Your task to perform on an android device: Show the shopping cart on bestbuy. Search for "razer blade" on bestbuy, select the first entry, add it to the cart, then select checkout. Image 0: 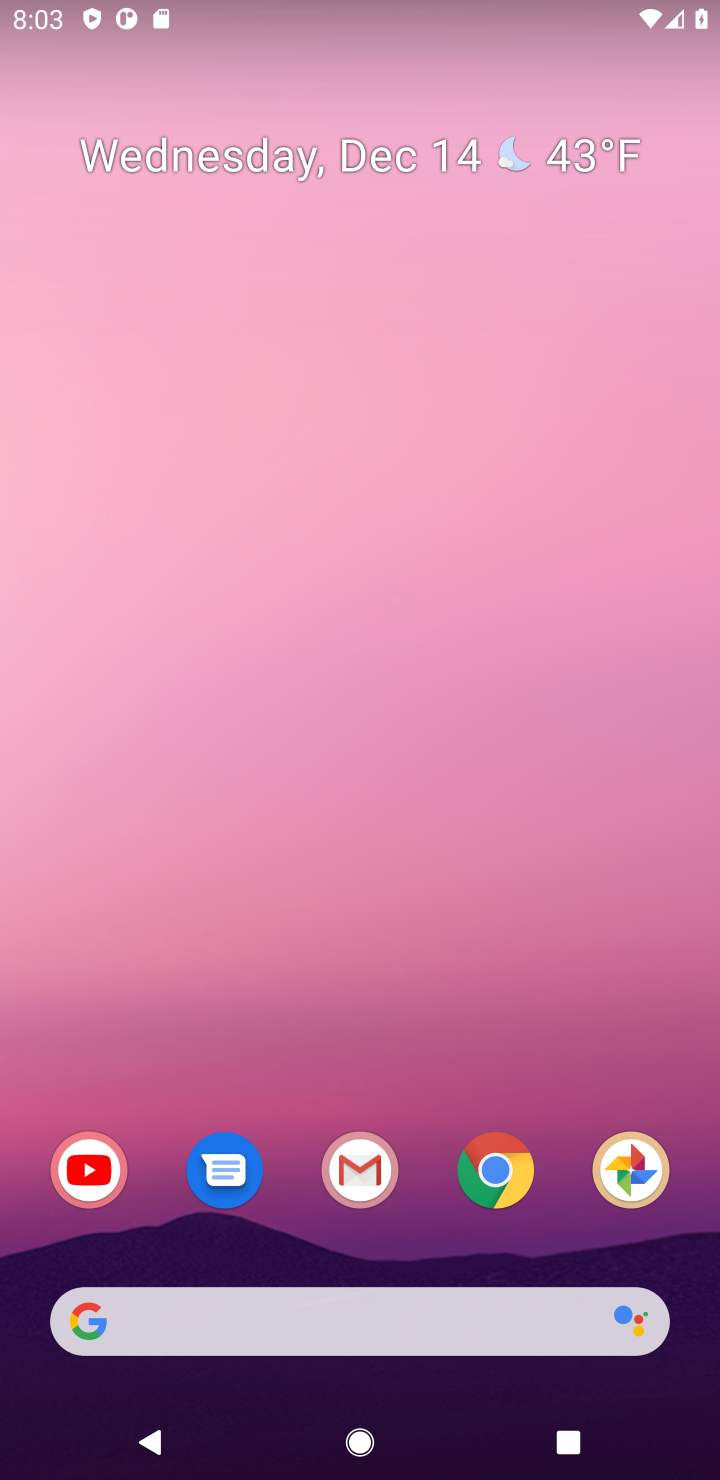
Step 0: click (479, 1141)
Your task to perform on an android device: Show the shopping cart on bestbuy. Search for "razer blade" on bestbuy, select the first entry, add it to the cart, then select checkout. Image 1: 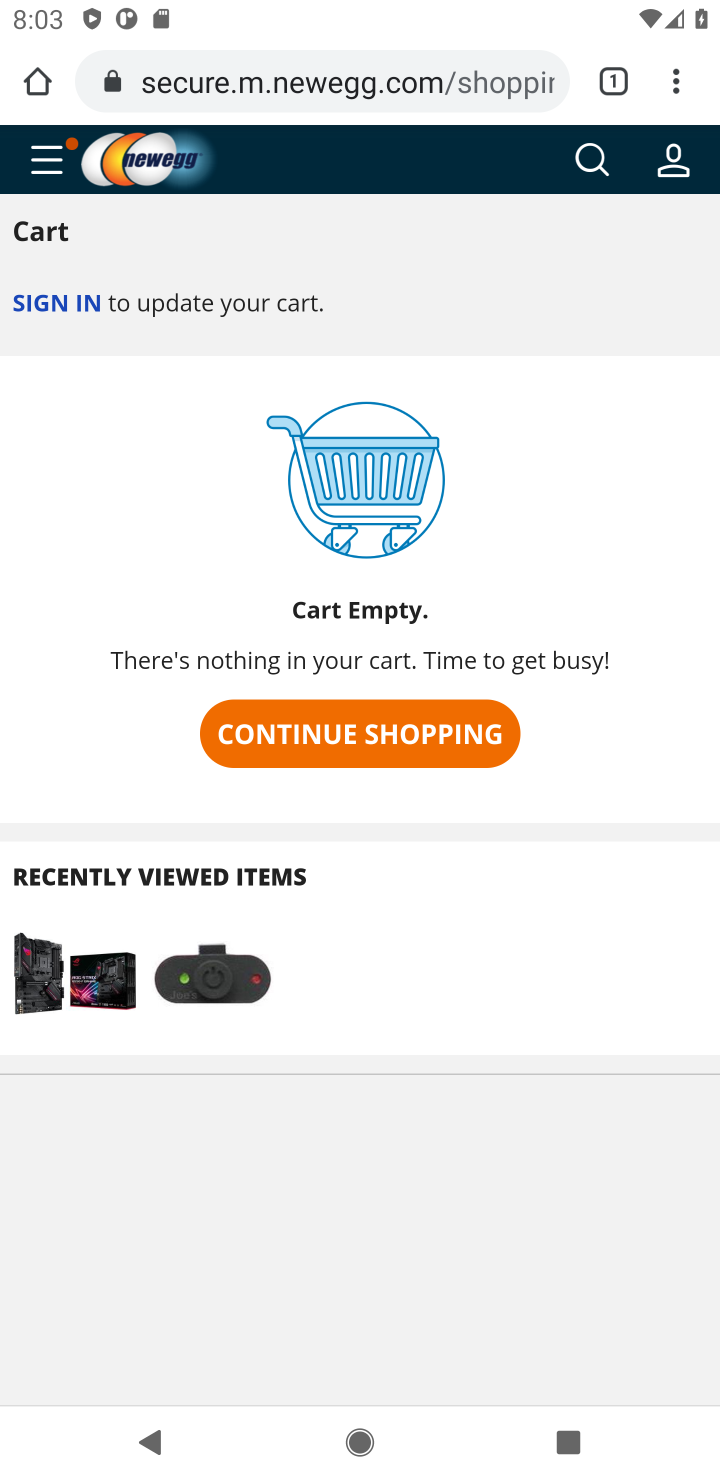
Step 1: click (468, 72)
Your task to perform on an android device: Show the shopping cart on bestbuy. Search for "razer blade" on bestbuy, select the first entry, add it to the cart, then select checkout. Image 2: 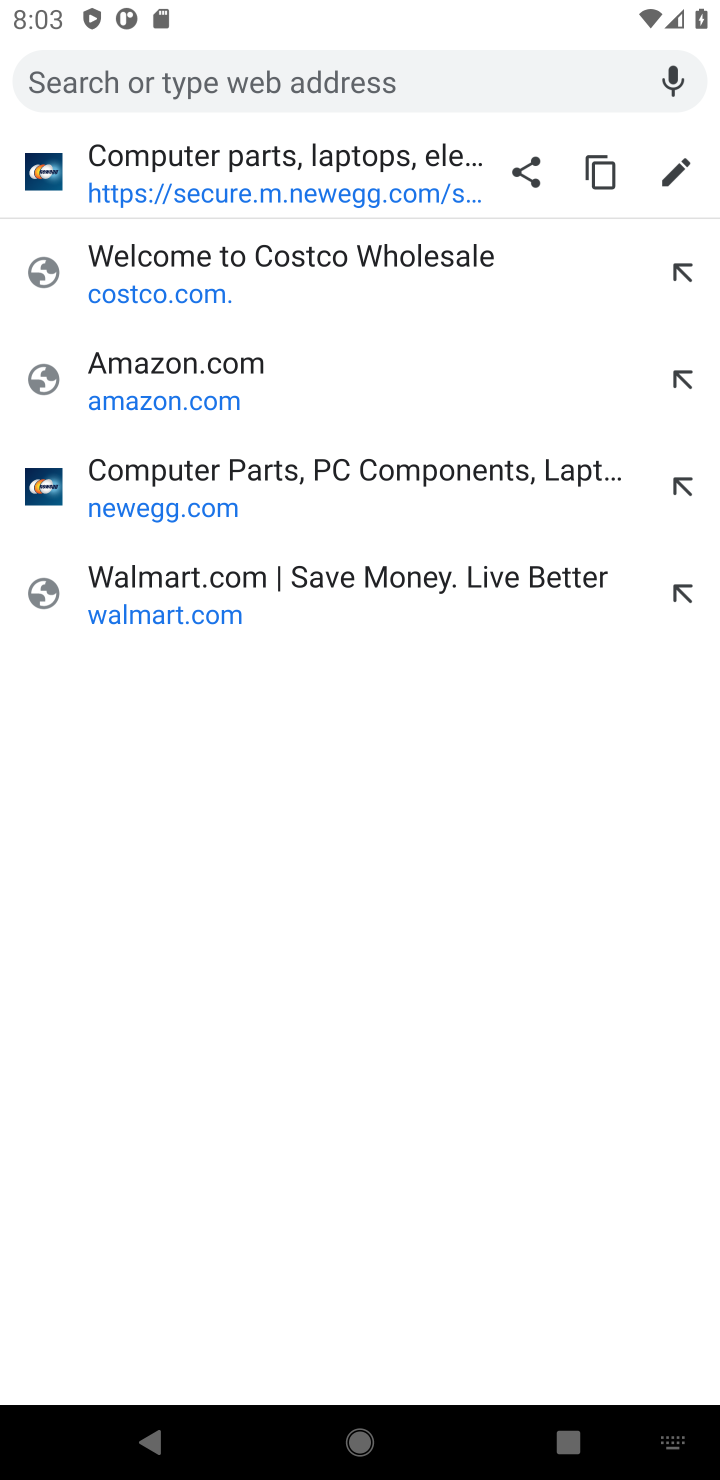
Step 2: type "BESTBUY"
Your task to perform on an android device: Show the shopping cart on bestbuy. Search for "razer blade" on bestbuy, select the first entry, add it to the cart, then select checkout. Image 3: 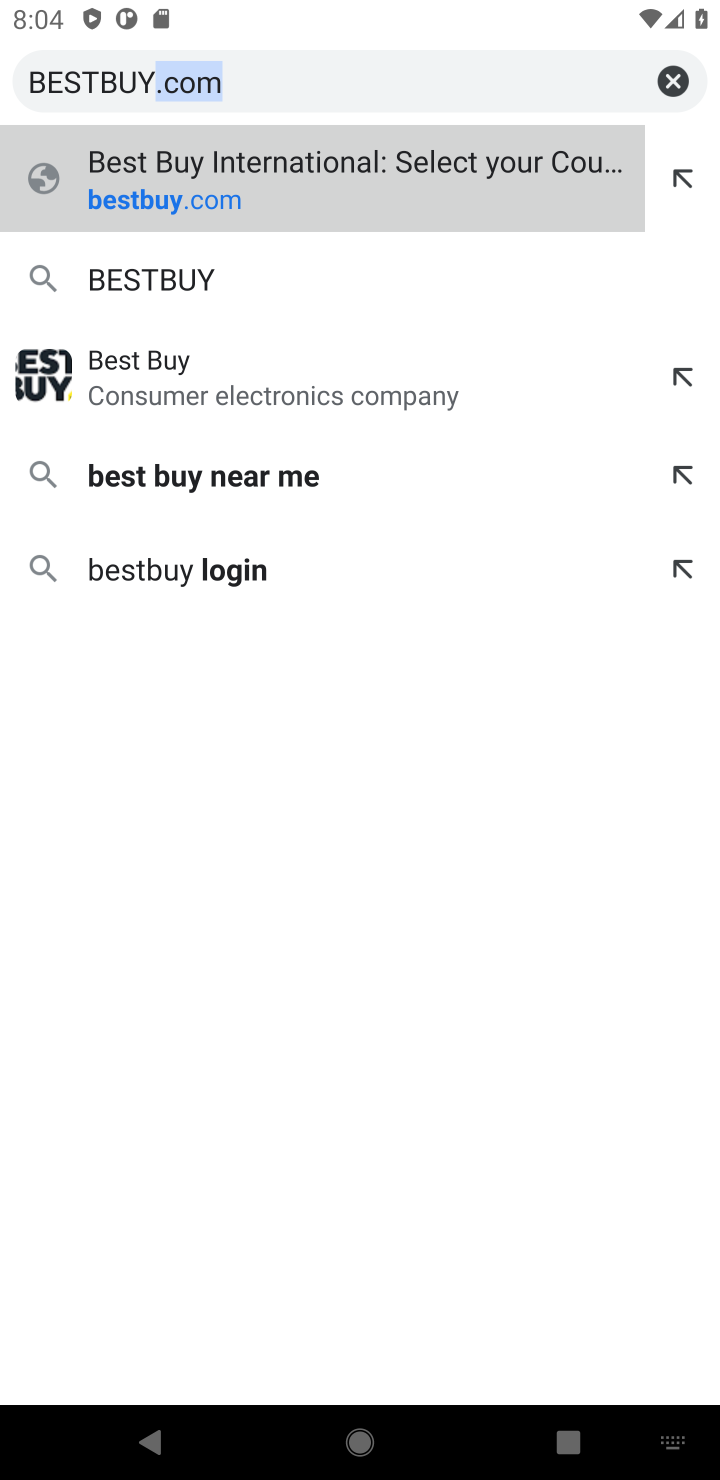
Step 3: click (359, 171)
Your task to perform on an android device: Show the shopping cart on bestbuy. Search for "razer blade" on bestbuy, select the first entry, add it to the cart, then select checkout. Image 4: 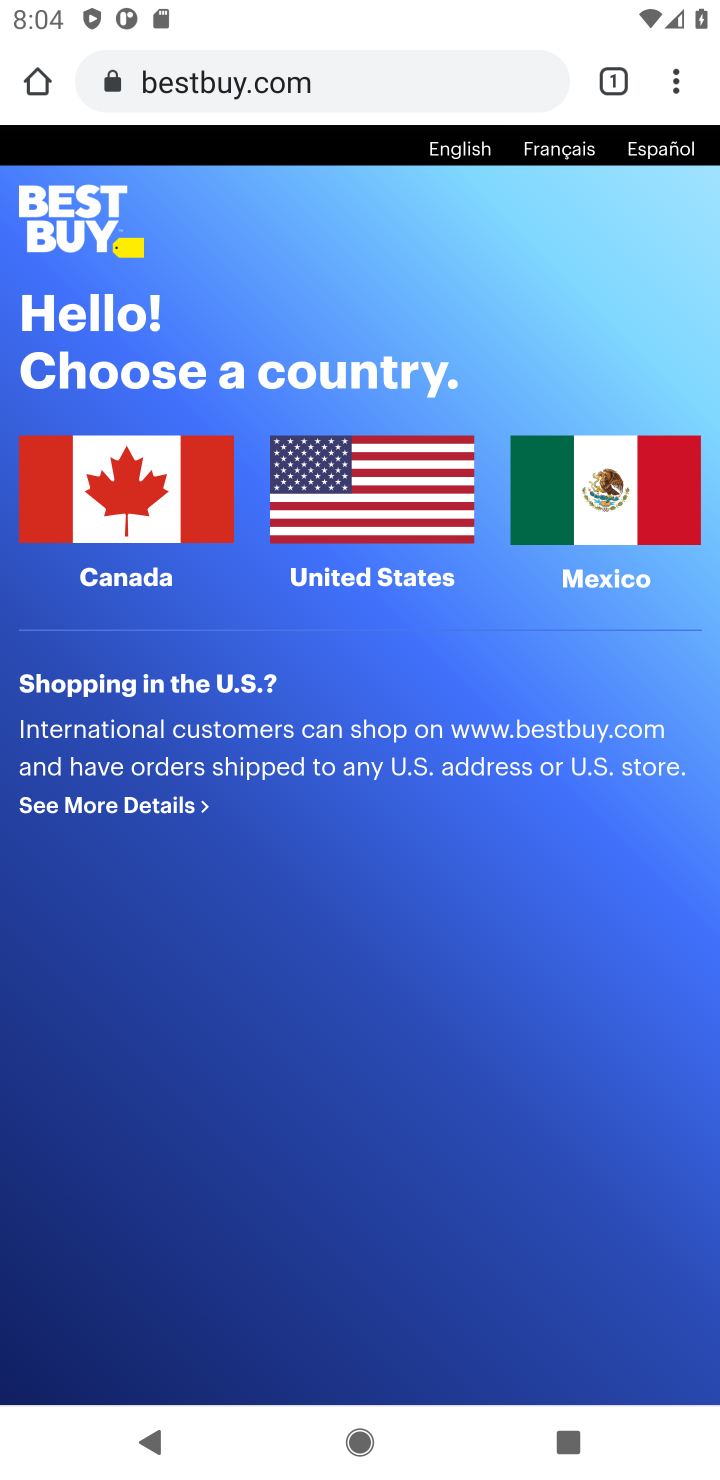
Step 4: click (333, 512)
Your task to perform on an android device: Show the shopping cart on bestbuy. Search for "razer blade" on bestbuy, select the first entry, add it to the cart, then select checkout. Image 5: 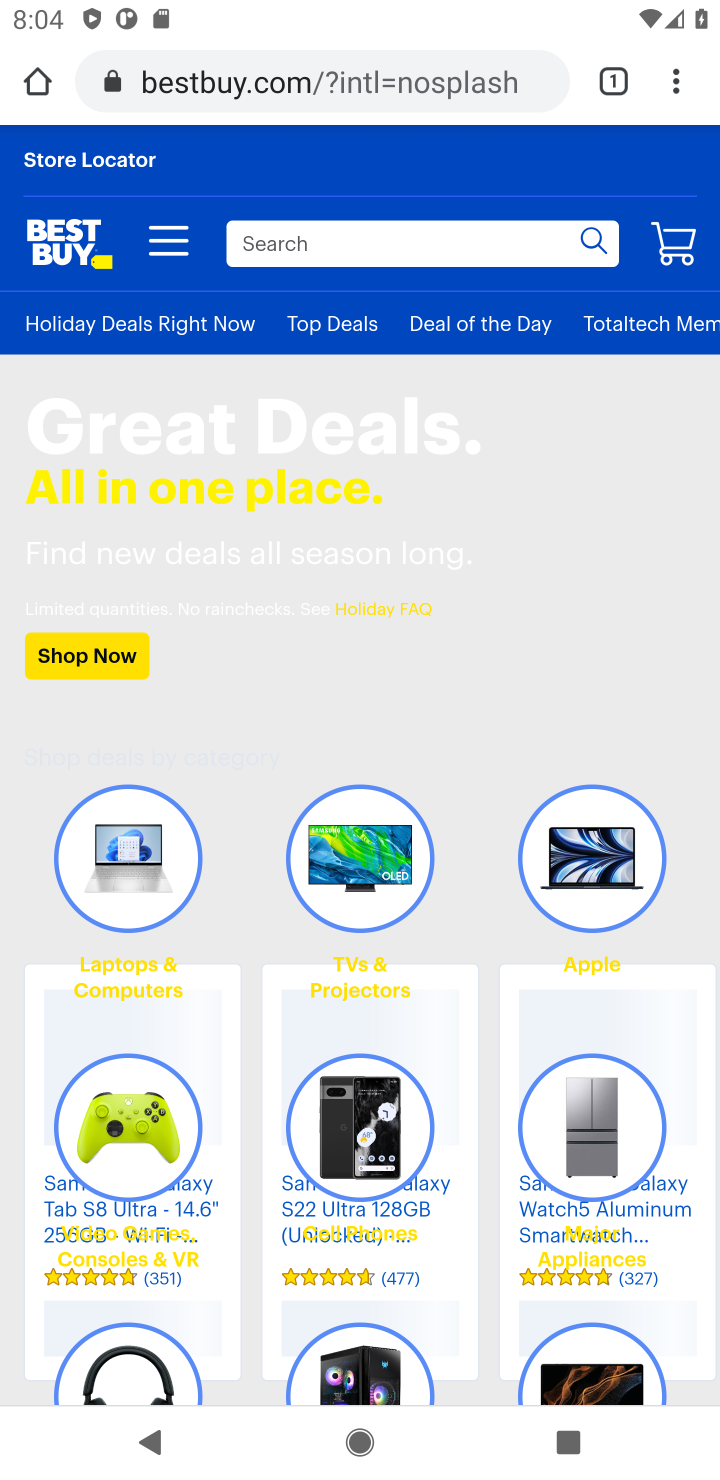
Step 5: click (482, 245)
Your task to perform on an android device: Show the shopping cart on bestbuy. Search for "razer blade" on bestbuy, select the first entry, add it to the cart, then select checkout. Image 6: 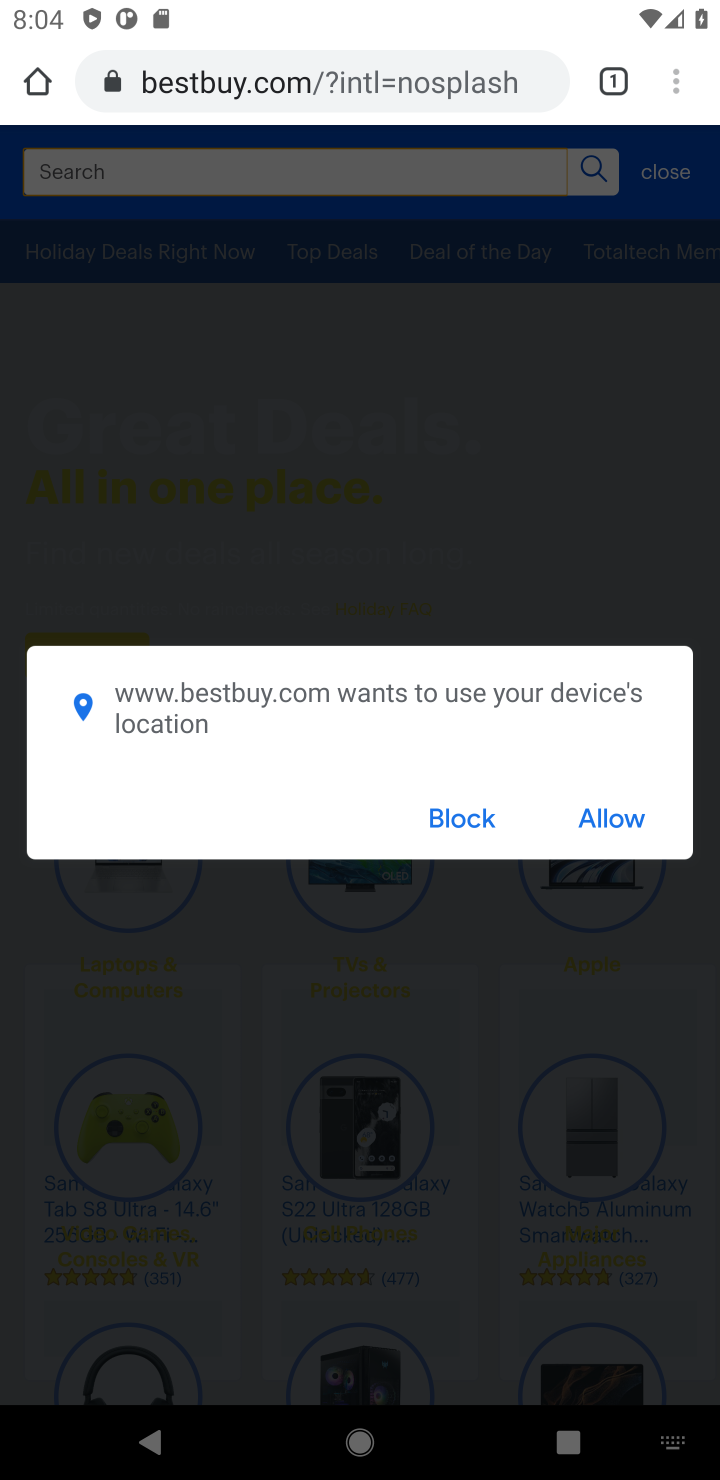
Step 6: type "RAZER"
Your task to perform on an android device: Show the shopping cart on bestbuy. Search for "razer blade" on bestbuy, select the first entry, add it to the cart, then select checkout. Image 7: 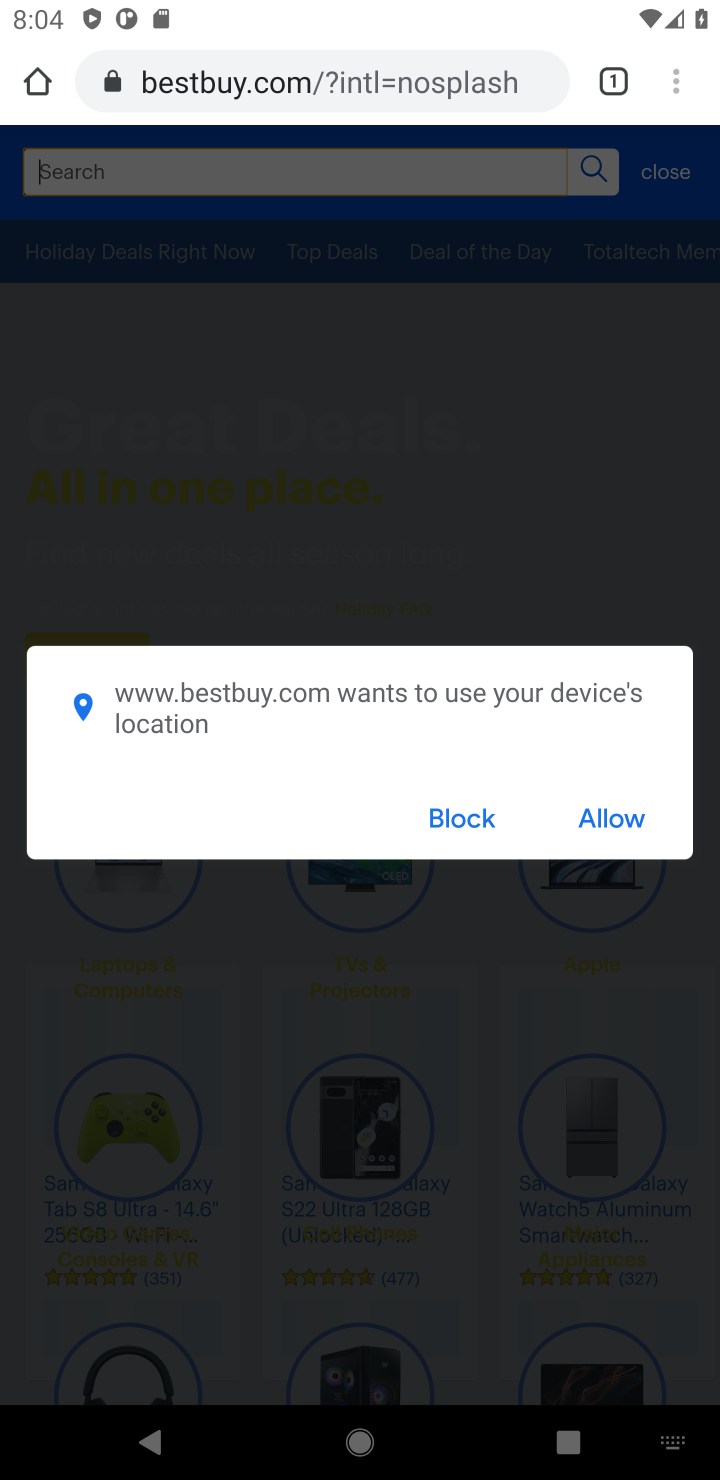
Step 7: click (447, 830)
Your task to perform on an android device: Show the shopping cart on bestbuy. Search for "razer blade" on bestbuy, select the first entry, add it to the cart, then select checkout. Image 8: 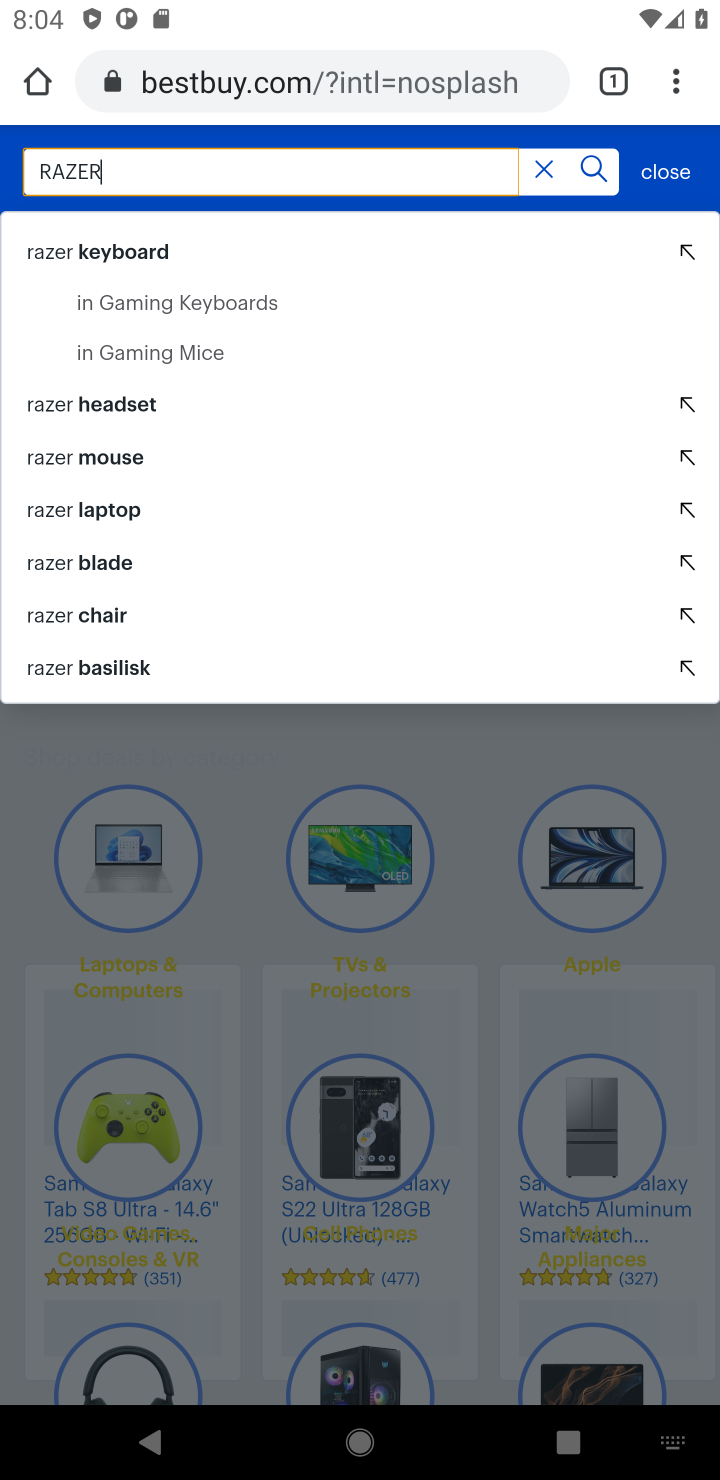
Step 8: type "BLADE"
Your task to perform on an android device: Show the shopping cart on bestbuy. Search for "razer blade" on bestbuy, select the first entry, add it to the cart, then select checkout. Image 9: 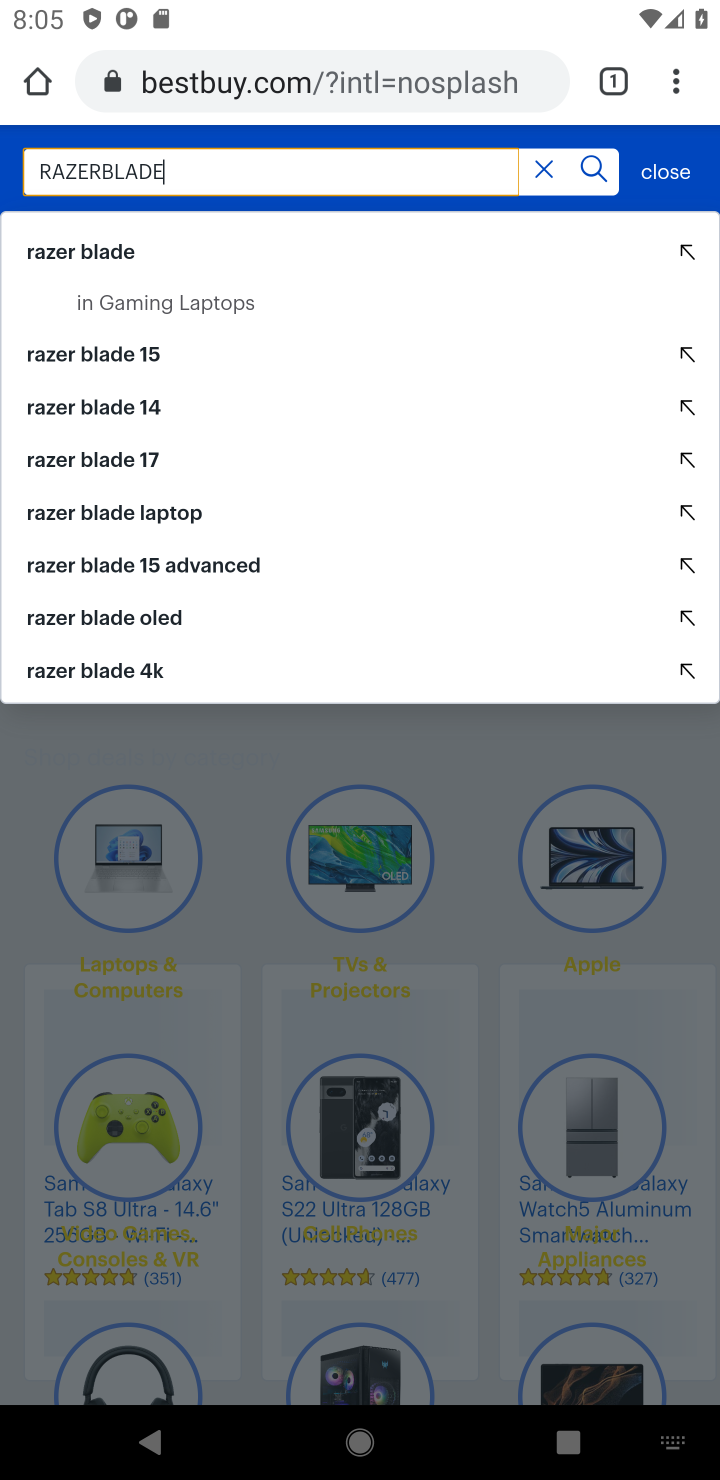
Step 9: click (123, 262)
Your task to perform on an android device: Show the shopping cart on bestbuy. Search for "razer blade" on bestbuy, select the first entry, add it to the cart, then select checkout. Image 10: 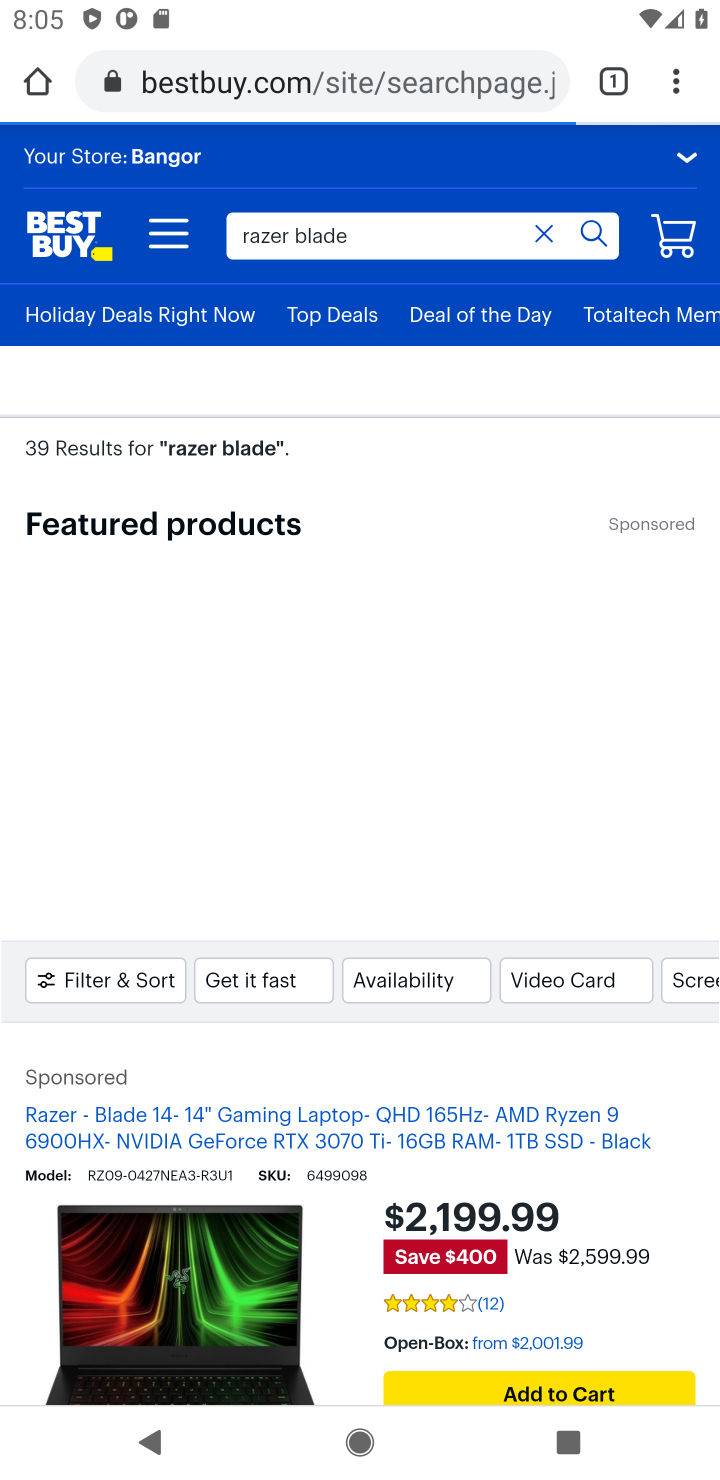
Step 10: click (324, 1225)
Your task to perform on an android device: Show the shopping cart on bestbuy. Search for "razer blade" on bestbuy, select the first entry, add it to the cart, then select checkout. Image 11: 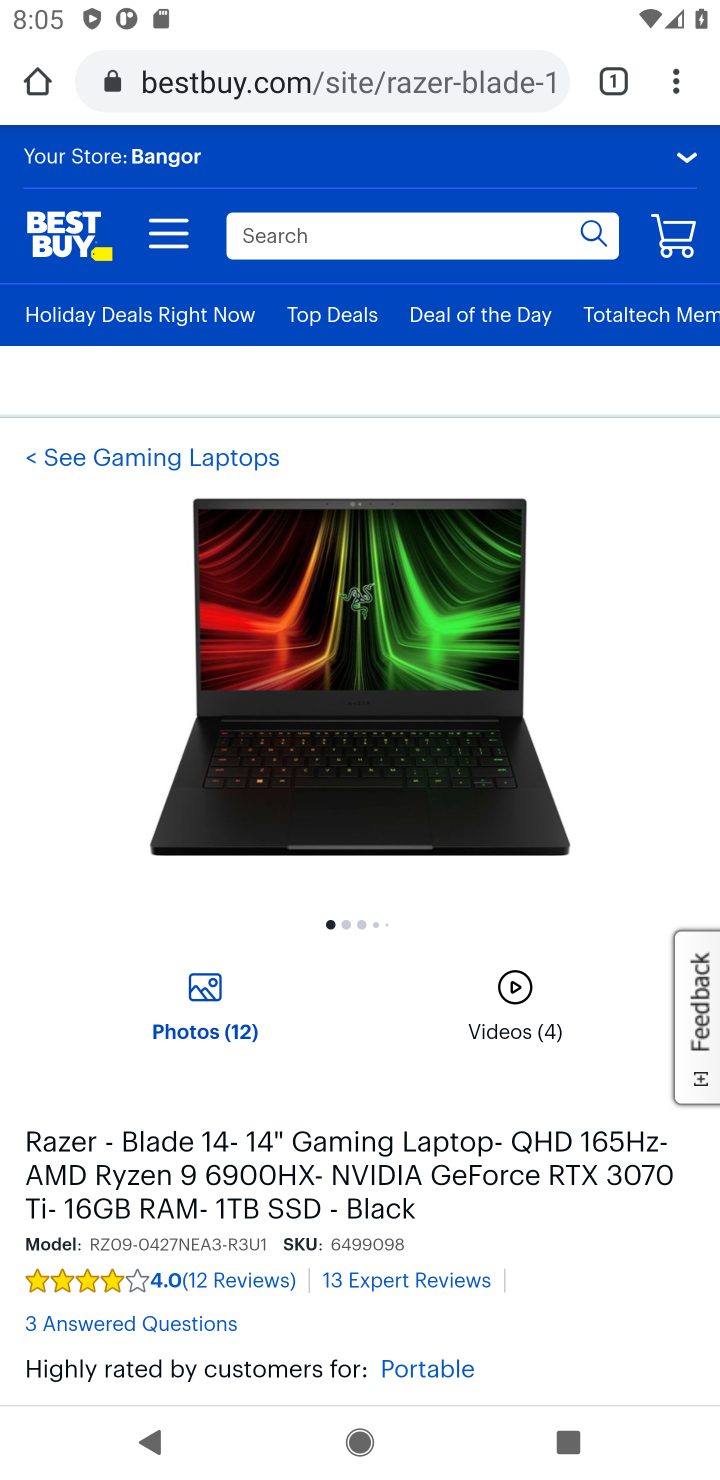
Step 11: drag from (508, 1265) to (563, 566)
Your task to perform on an android device: Show the shopping cart on bestbuy. Search for "razer blade" on bestbuy, select the first entry, add it to the cart, then select checkout. Image 12: 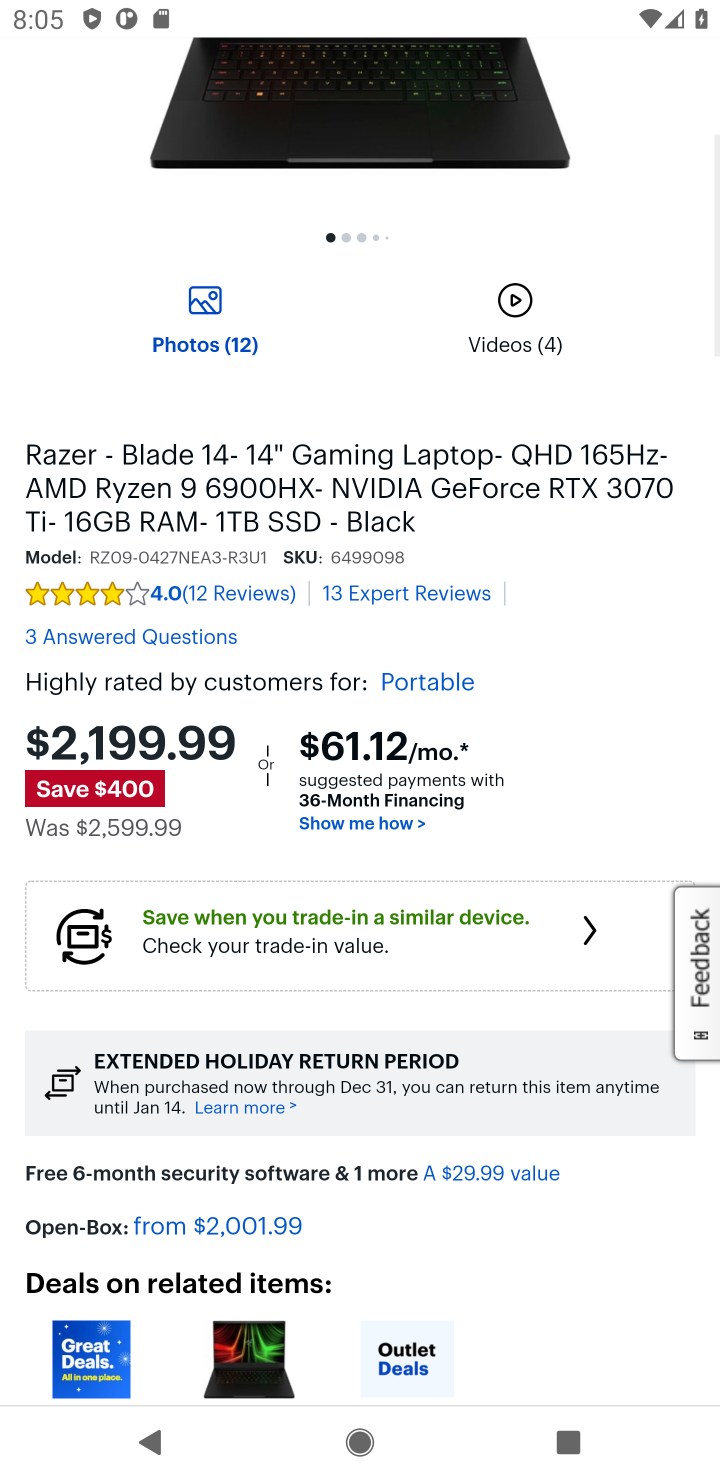
Step 12: drag from (440, 1216) to (503, 239)
Your task to perform on an android device: Show the shopping cart on bestbuy. Search for "razer blade" on bestbuy, select the first entry, add it to the cart, then select checkout. Image 13: 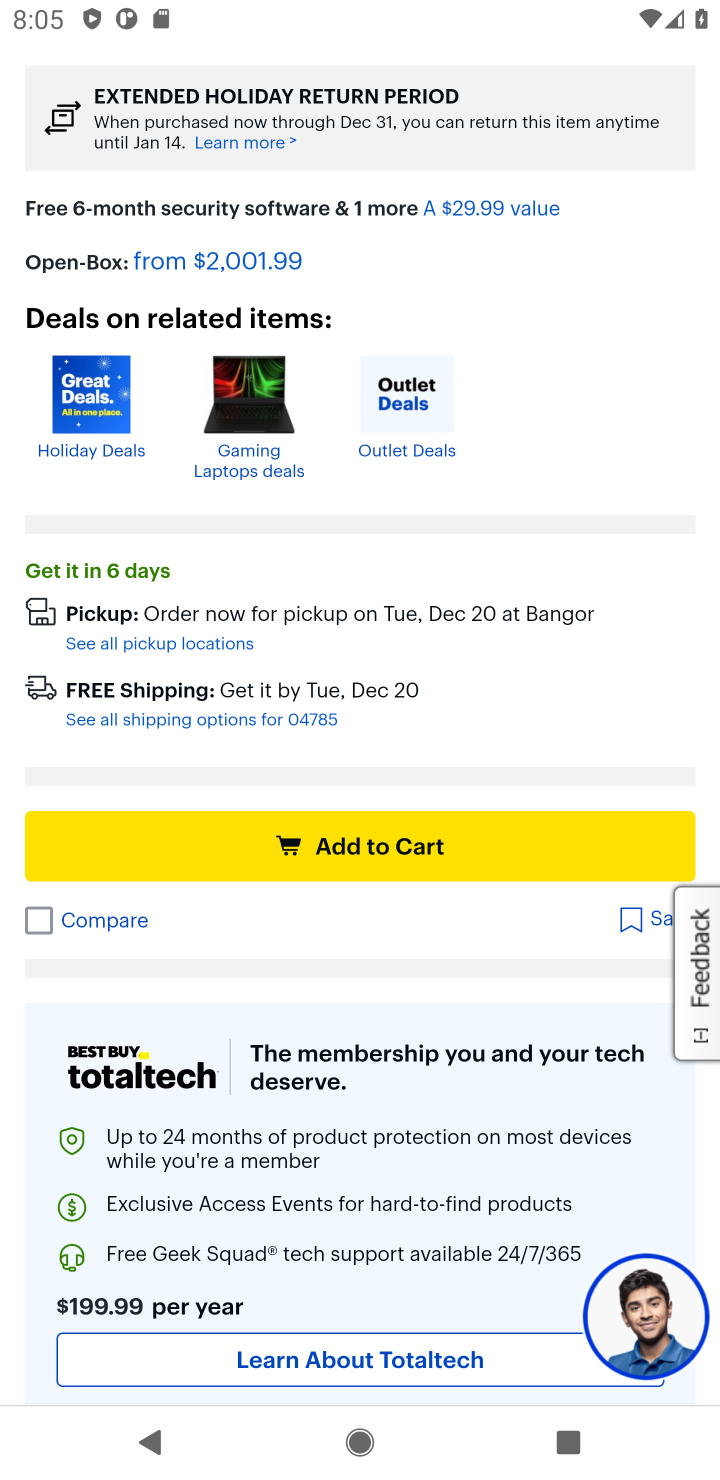
Step 13: click (353, 849)
Your task to perform on an android device: Show the shopping cart on bestbuy. Search for "razer blade" on bestbuy, select the first entry, add it to the cart, then select checkout. Image 14: 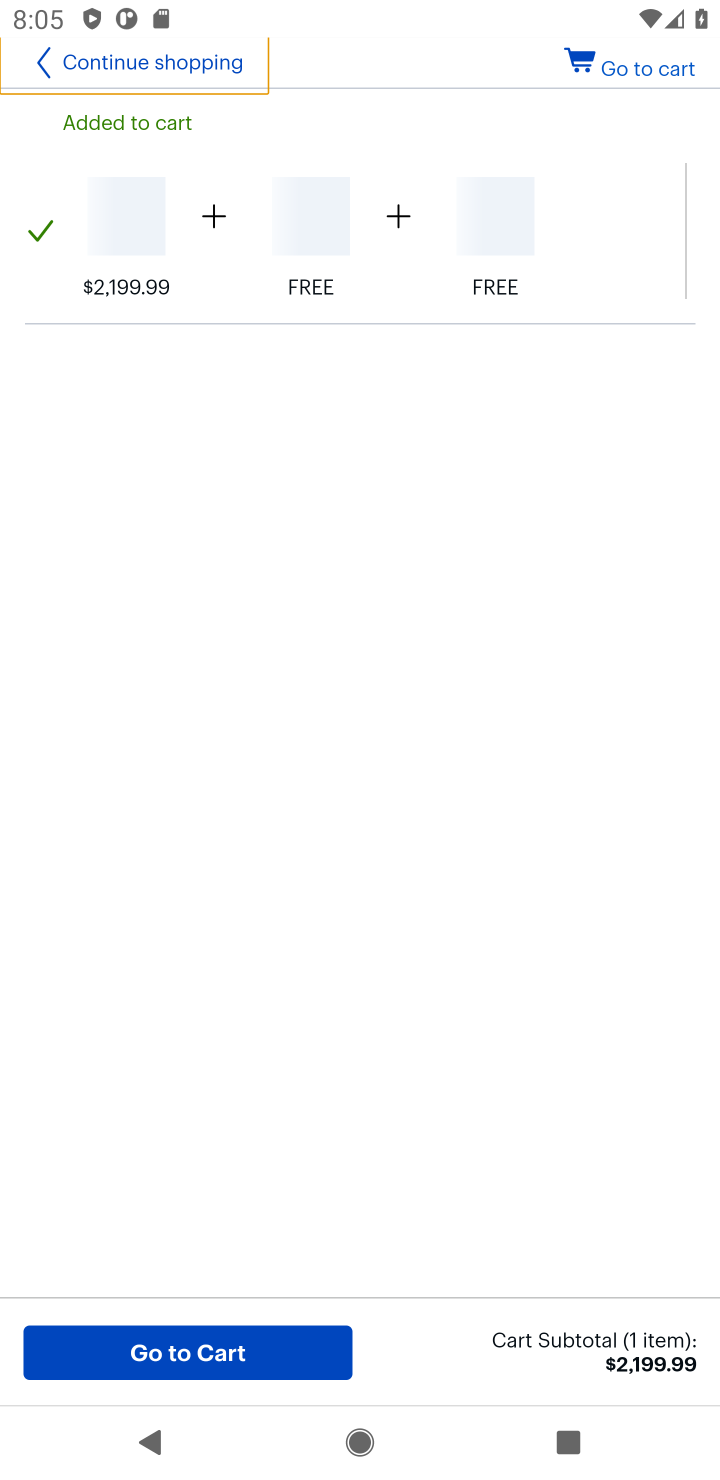
Step 14: click (159, 1350)
Your task to perform on an android device: Show the shopping cart on bestbuy. Search for "razer blade" on bestbuy, select the first entry, add it to the cart, then select checkout. Image 15: 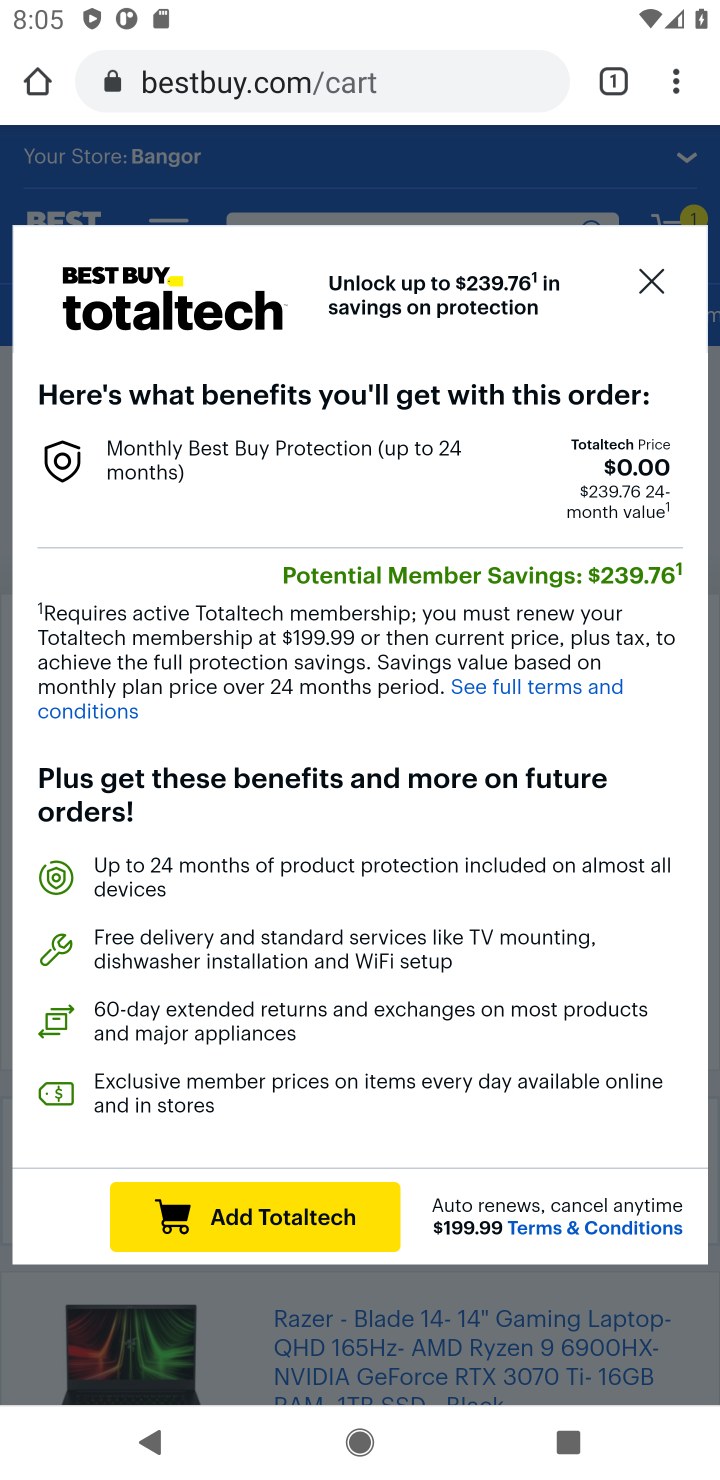
Step 15: task complete